Your task to perform on an android device: Search for seafood restaurants on Google Maps Image 0: 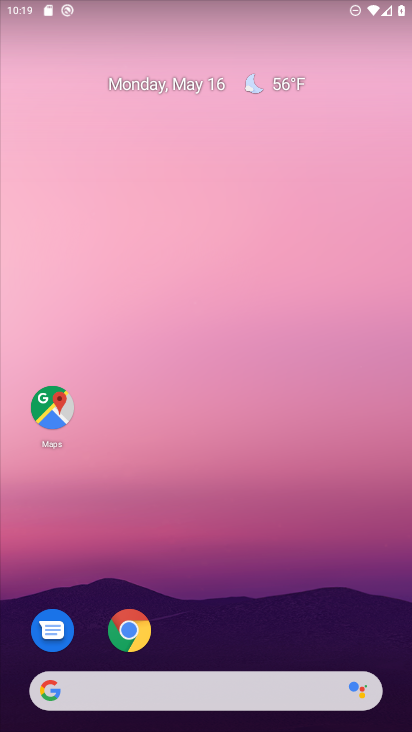
Step 0: click (65, 402)
Your task to perform on an android device: Search for seafood restaurants on Google Maps Image 1: 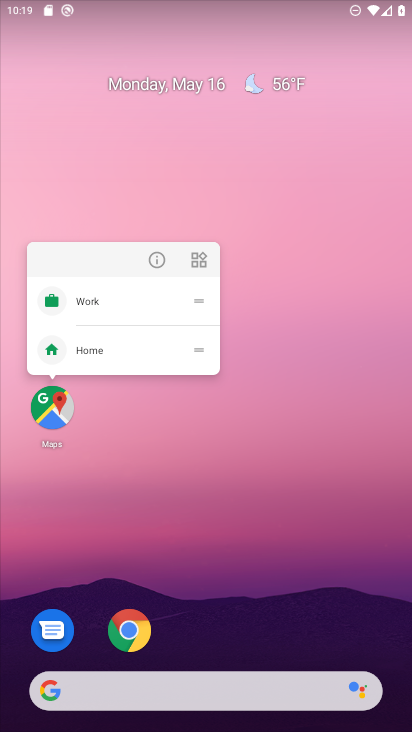
Step 1: click (63, 401)
Your task to perform on an android device: Search for seafood restaurants on Google Maps Image 2: 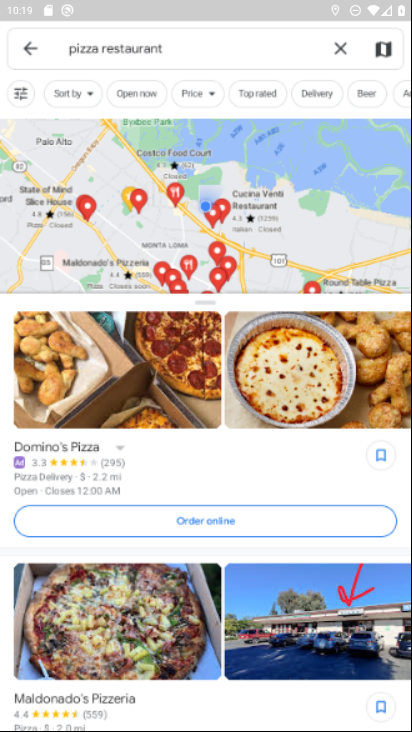
Step 2: click (348, 48)
Your task to perform on an android device: Search for seafood restaurants on Google Maps Image 3: 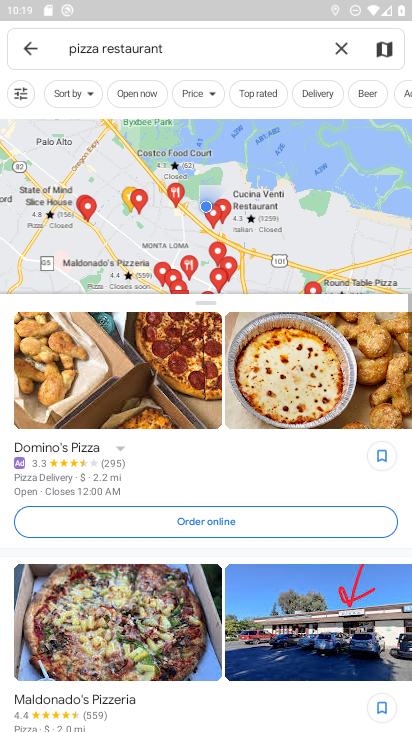
Step 3: click (344, 44)
Your task to perform on an android device: Search for seafood restaurants on Google Maps Image 4: 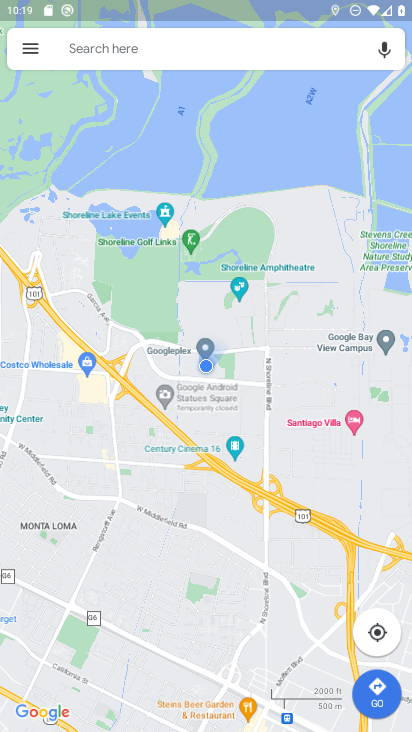
Step 4: click (124, 51)
Your task to perform on an android device: Search for seafood restaurants on Google Maps Image 5: 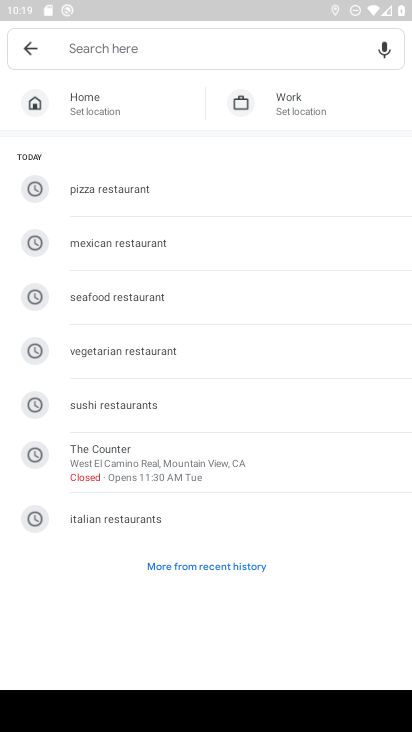
Step 5: type "seafood restaurants"
Your task to perform on an android device: Search for seafood restaurants on Google Maps Image 6: 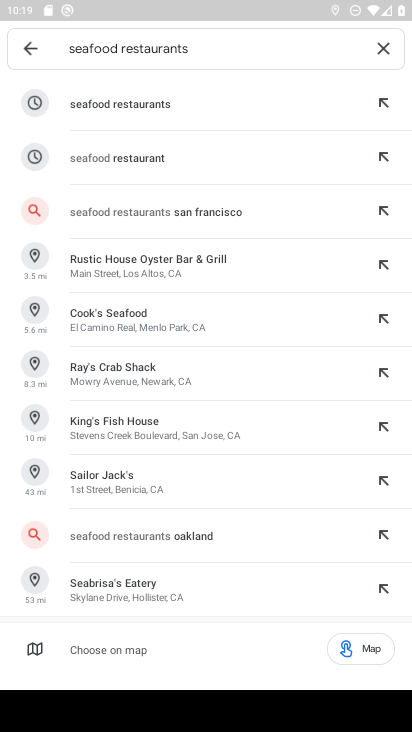
Step 6: click (146, 107)
Your task to perform on an android device: Search for seafood restaurants on Google Maps Image 7: 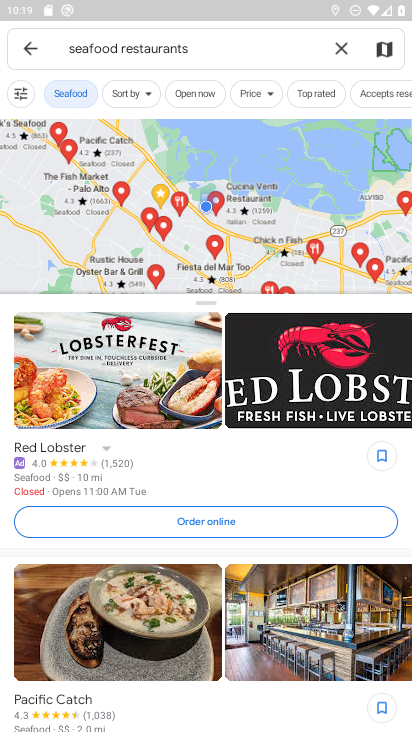
Step 7: task complete